Your task to perform on an android device: Search for panasonic triple a on target, select the first entry, and add it to the cart. Image 0: 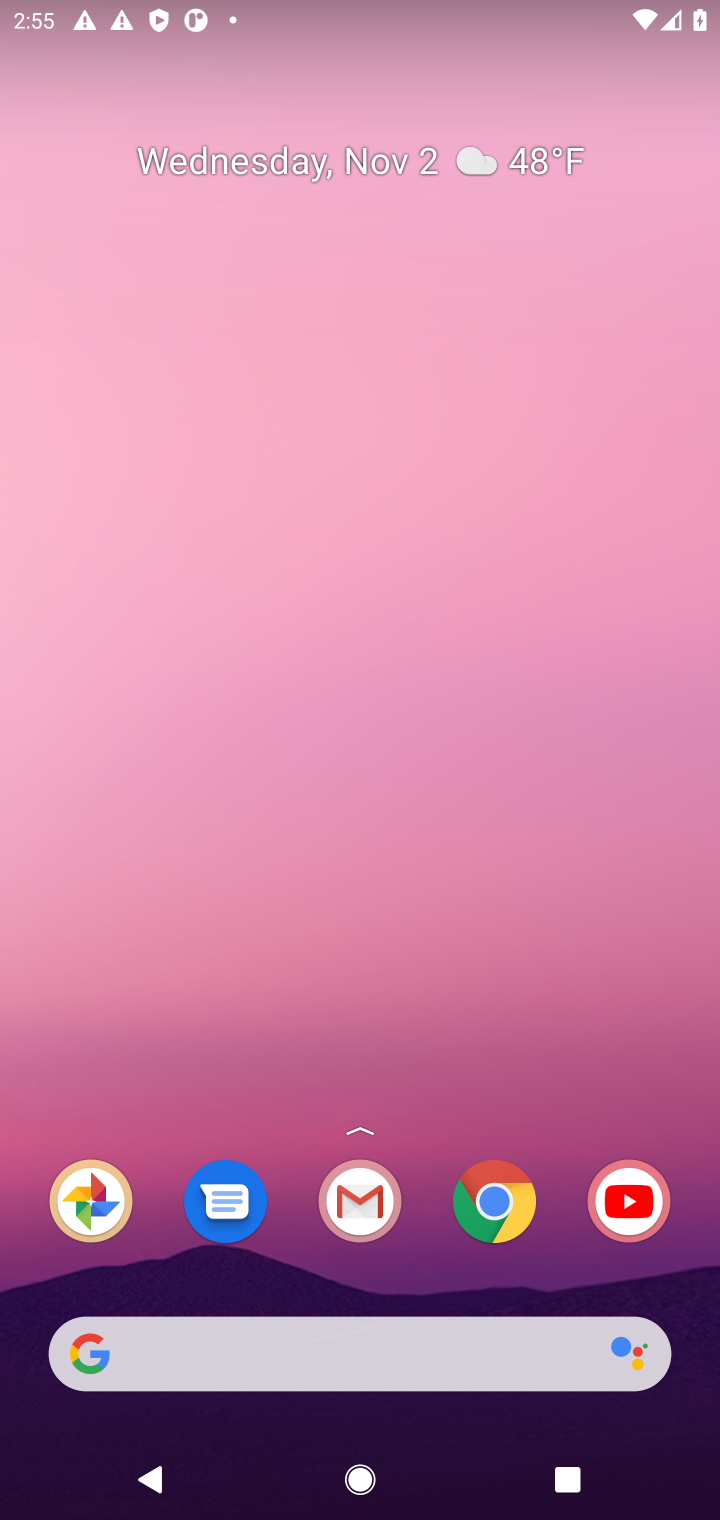
Step 0: click (512, 1202)
Your task to perform on an android device: Search for panasonic triple a on target, select the first entry, and add it to the cart. Image 1: 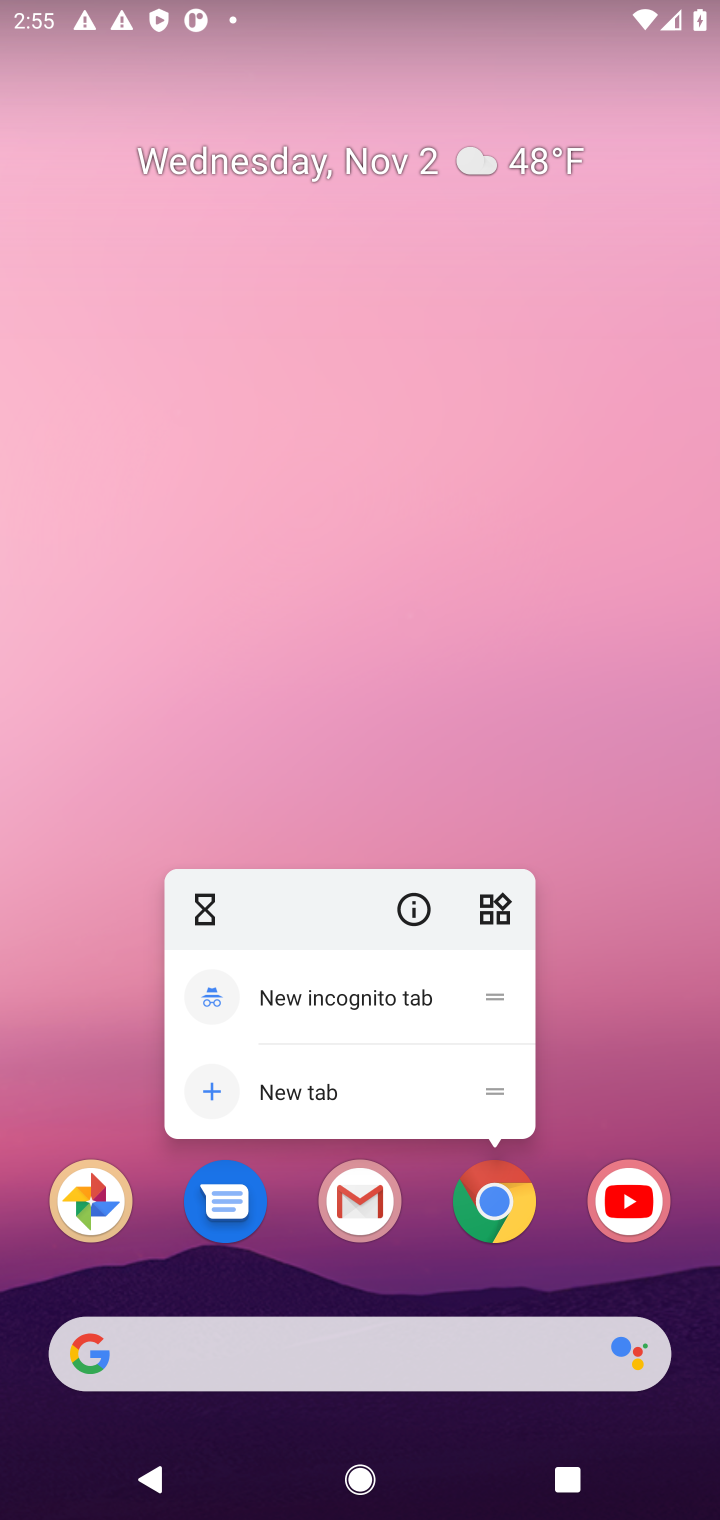
Step 1: click (652, 1045)
Your task to perform on an android device: Search for panasonic triple a on target, select the first entry, and add it to the cart. Image 2: 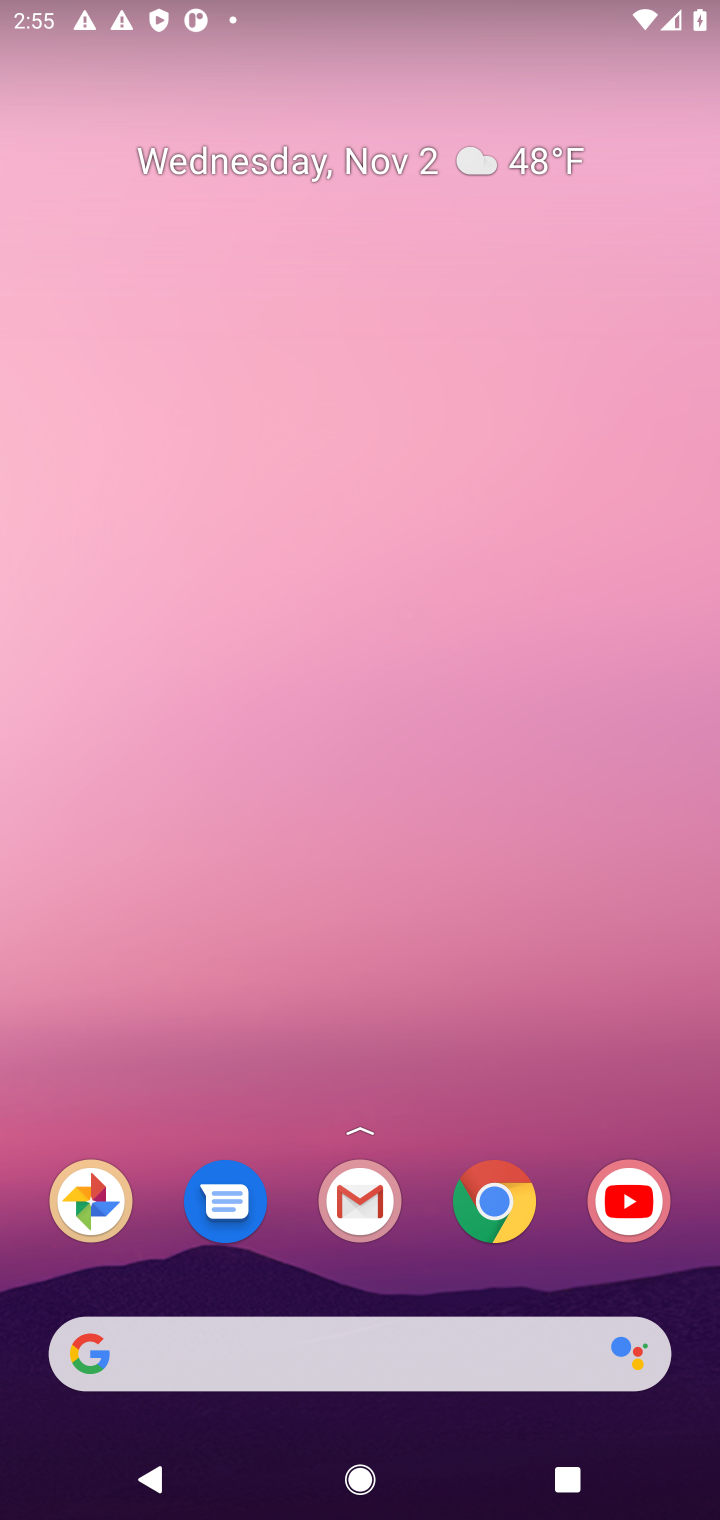
Step 2: click (500, 1192)
Your task to perform on an android device: Search for panasonic triple a on target, select the first entry, and add it to the cart. Image 3: 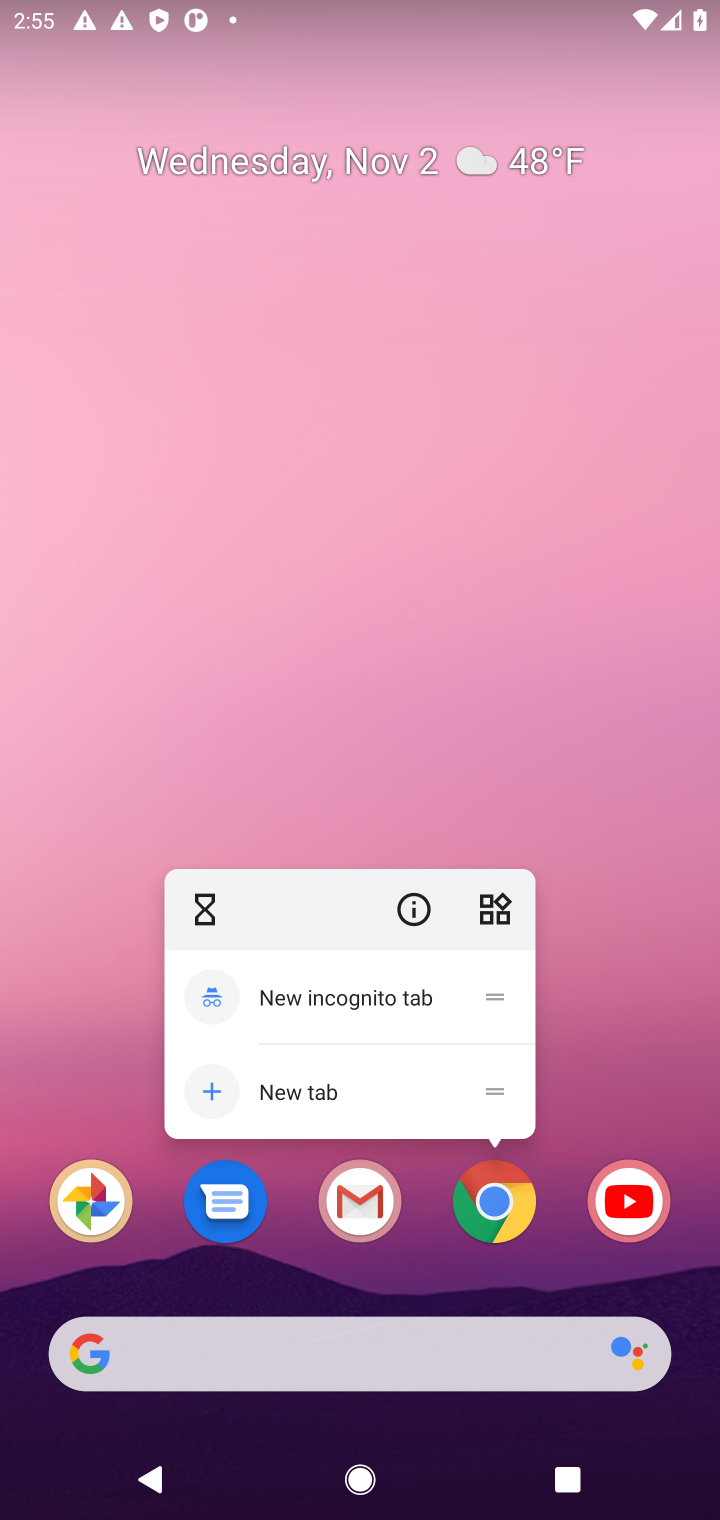
Step 3: click (500, 1192)
Your task to perform on an android device: Search for panasonic triple a on target, select the first entry, and add it to the cart. Image 4: 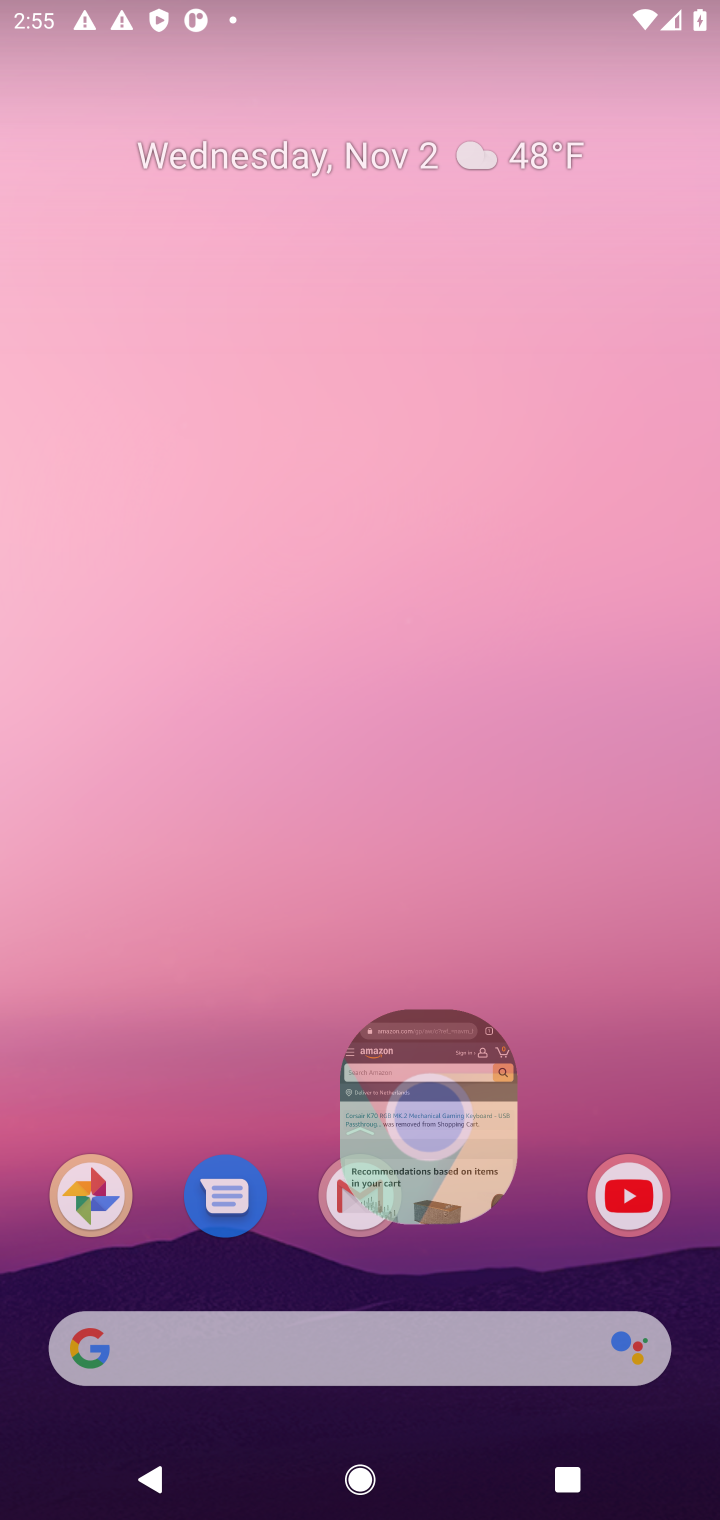
Step 4: click (500, 1192)
Your task to perform on an android device: Search for panasonic triple a on target, select the first entry, and add it to the cart. Image 5: 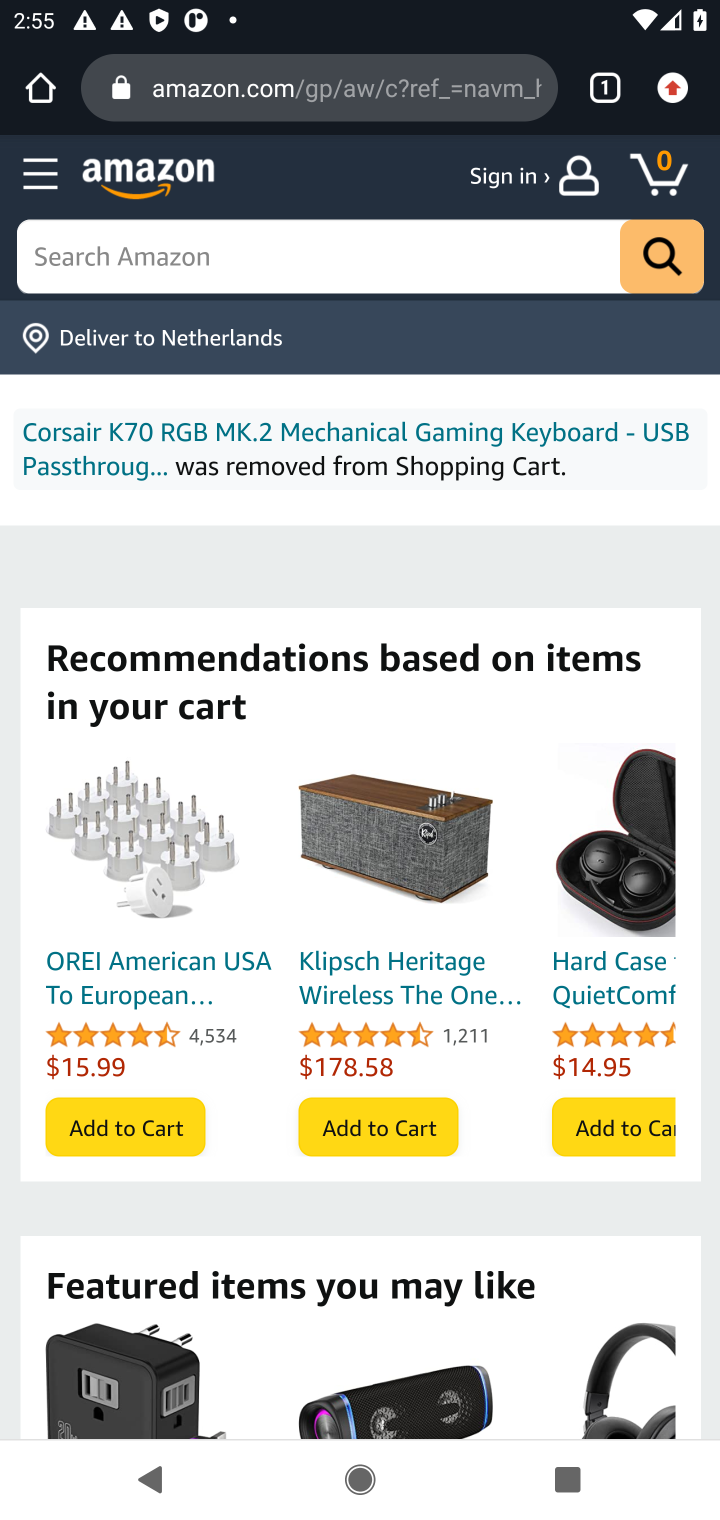
Step 5: click (471, 71)
Your task to perform on an android device: Search for panasonic triple a on target, select the first entry, and add it to the cart. Image 6: 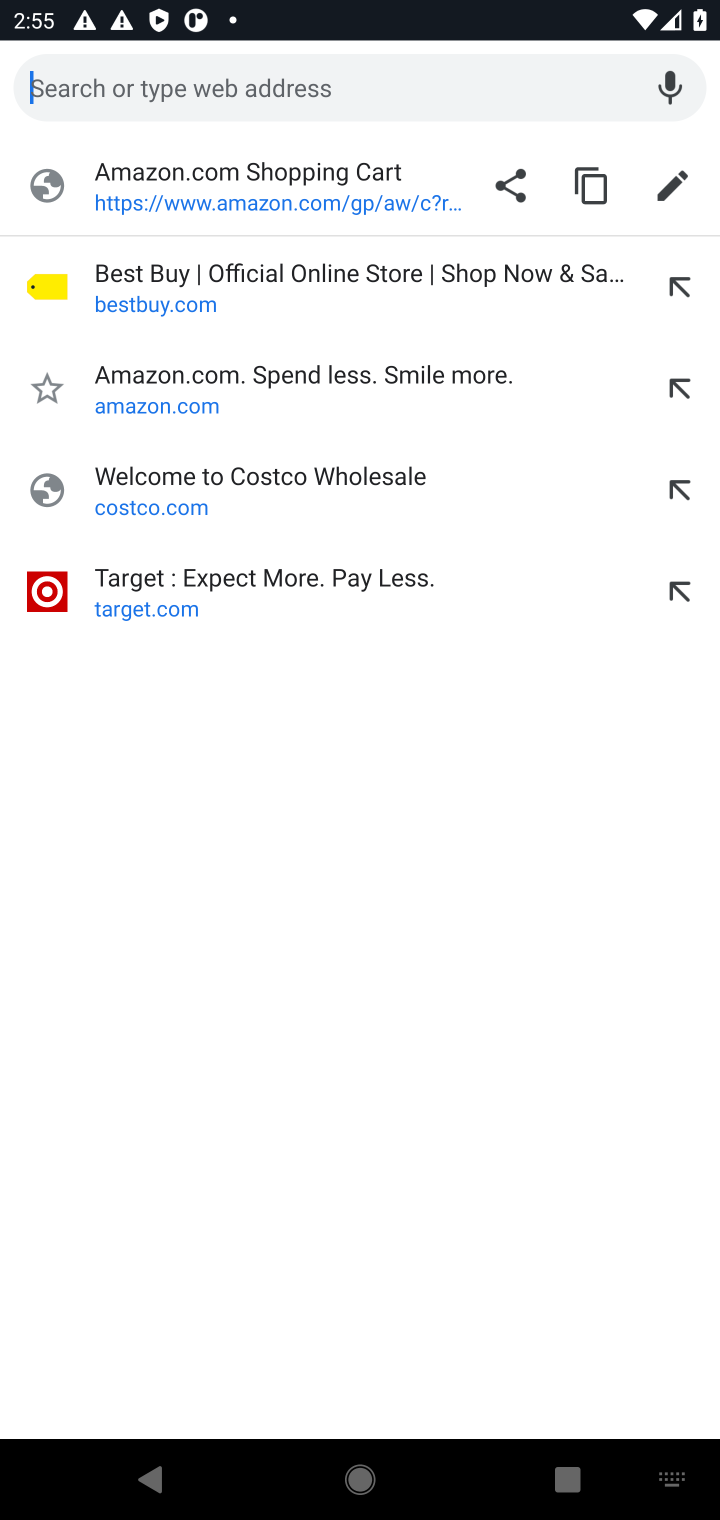
Step 6: click (155, 580)
Your task to perform on an android device: Search for panasonic triple a on target, select the first entry, and add it to the cart. Image 7: 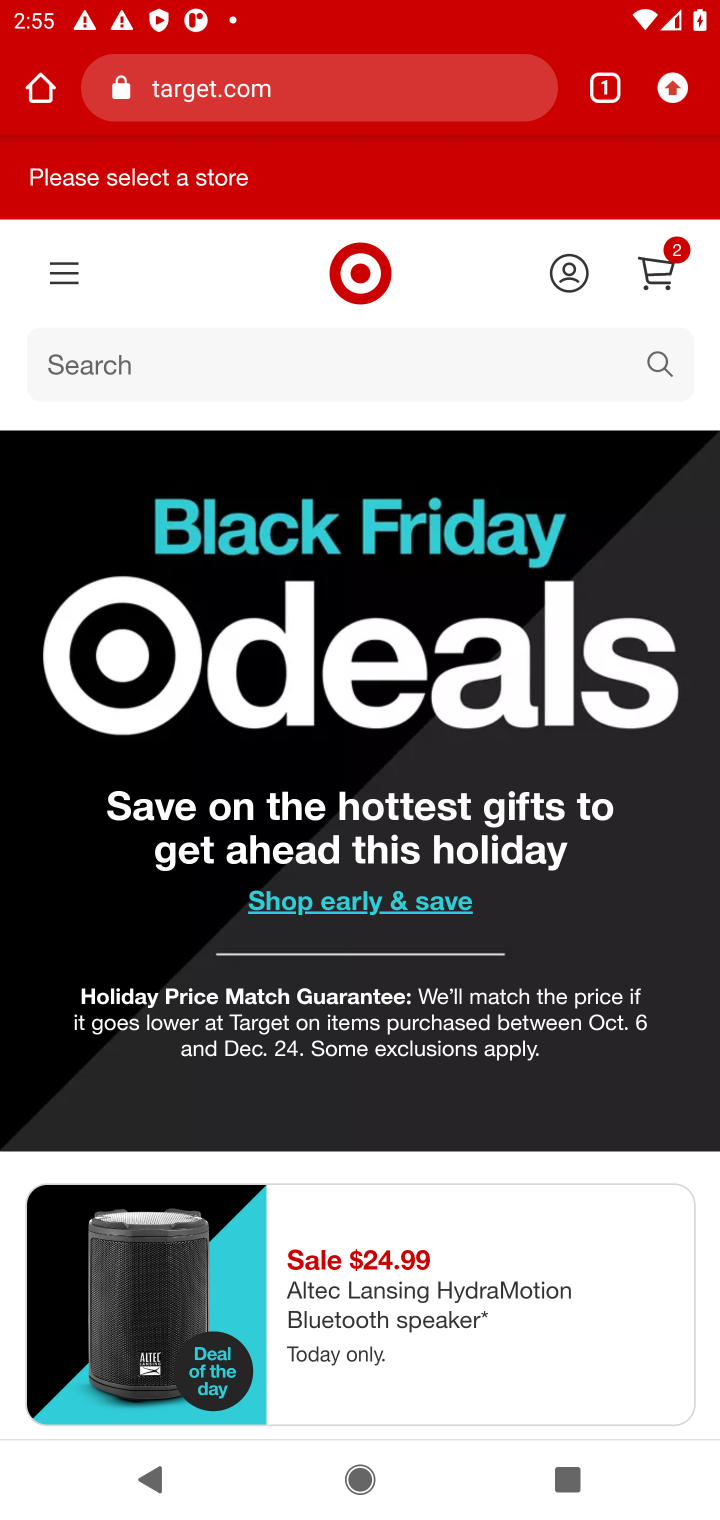
Step 7: click (659, 360)
Your task to perform on an android device: Search for panasonic triple a on target, select the first entry, and add it to the cart. Image 8: 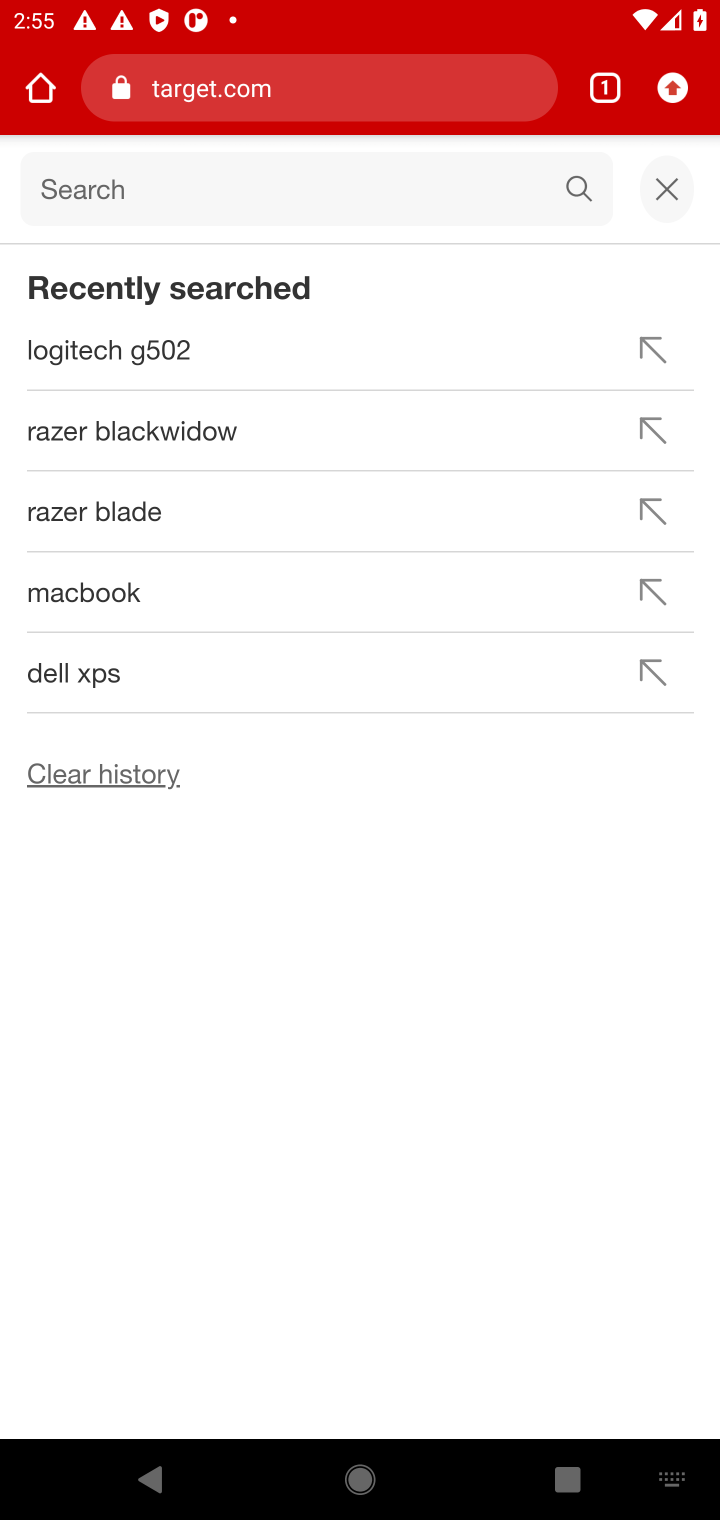
Step 8: type "panasonic triple a"
Your task to perform on an android device: Search for panasonic triple a on target, select the first entry, and add it to the cart. Image 9: 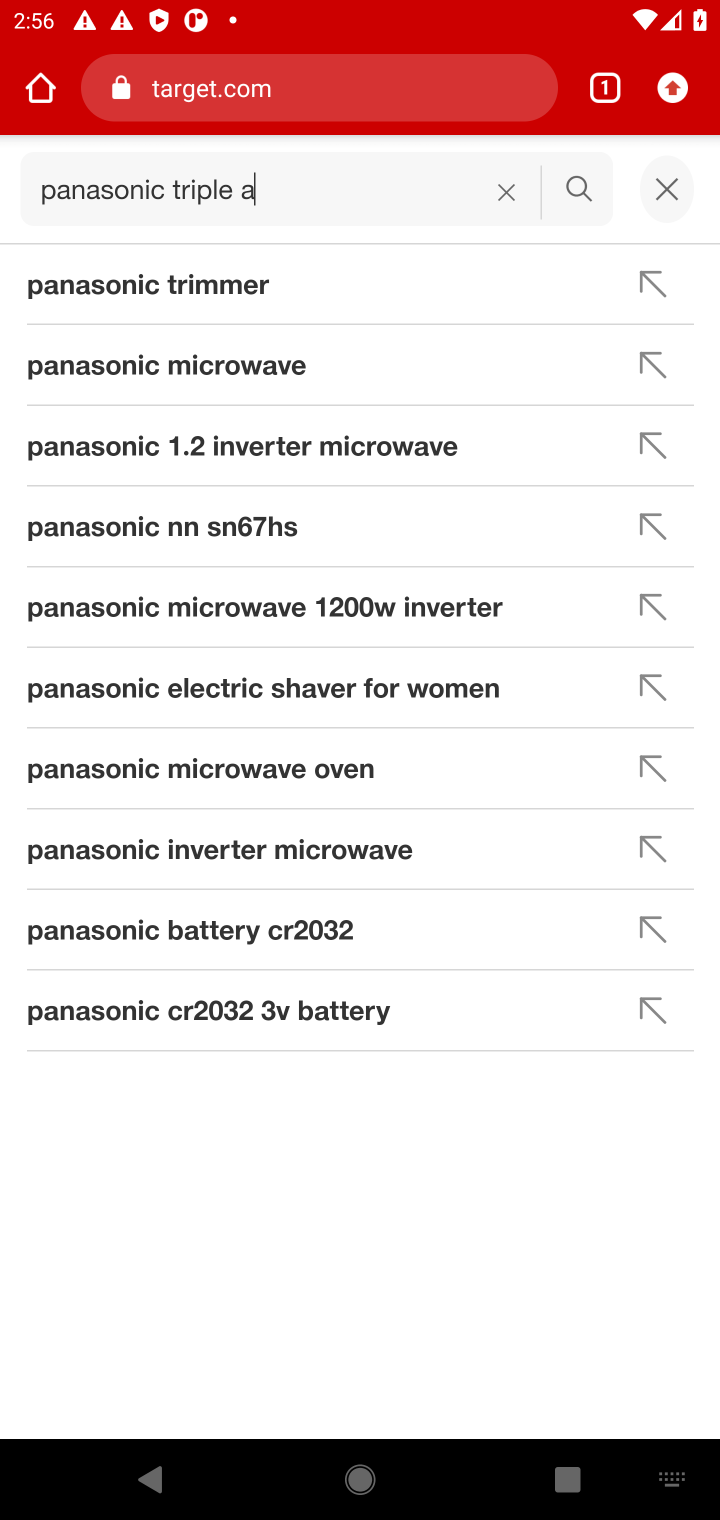
Step 9: click (443, 195)
Your task to perform on an android device: Search for panasonic triple a on target, select the first entry, and add it to the cart. Image 10: 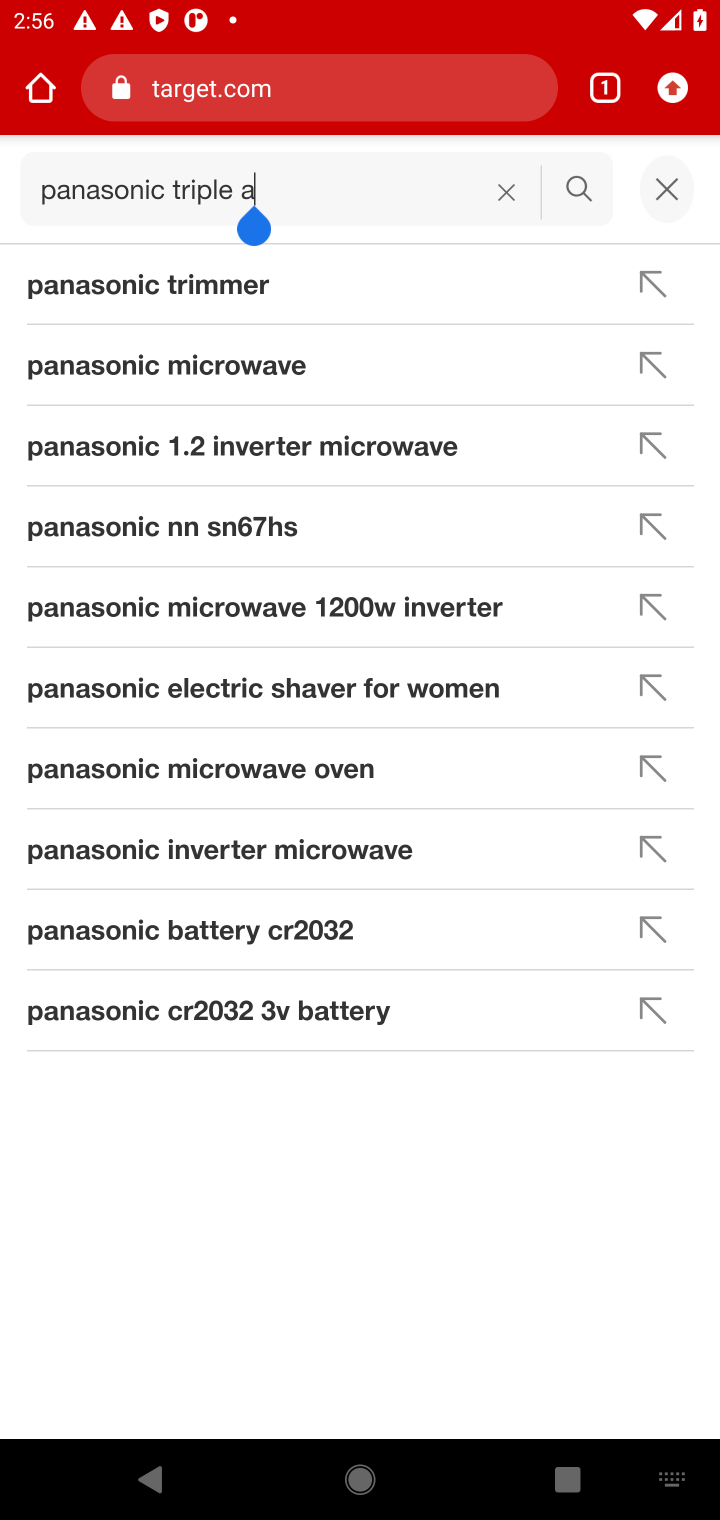
Step 10: click (532, 1245)
Your task to perform on an android device: Search for panasonic triple a on target, select the first entry, and add it to the cart. Image 11: 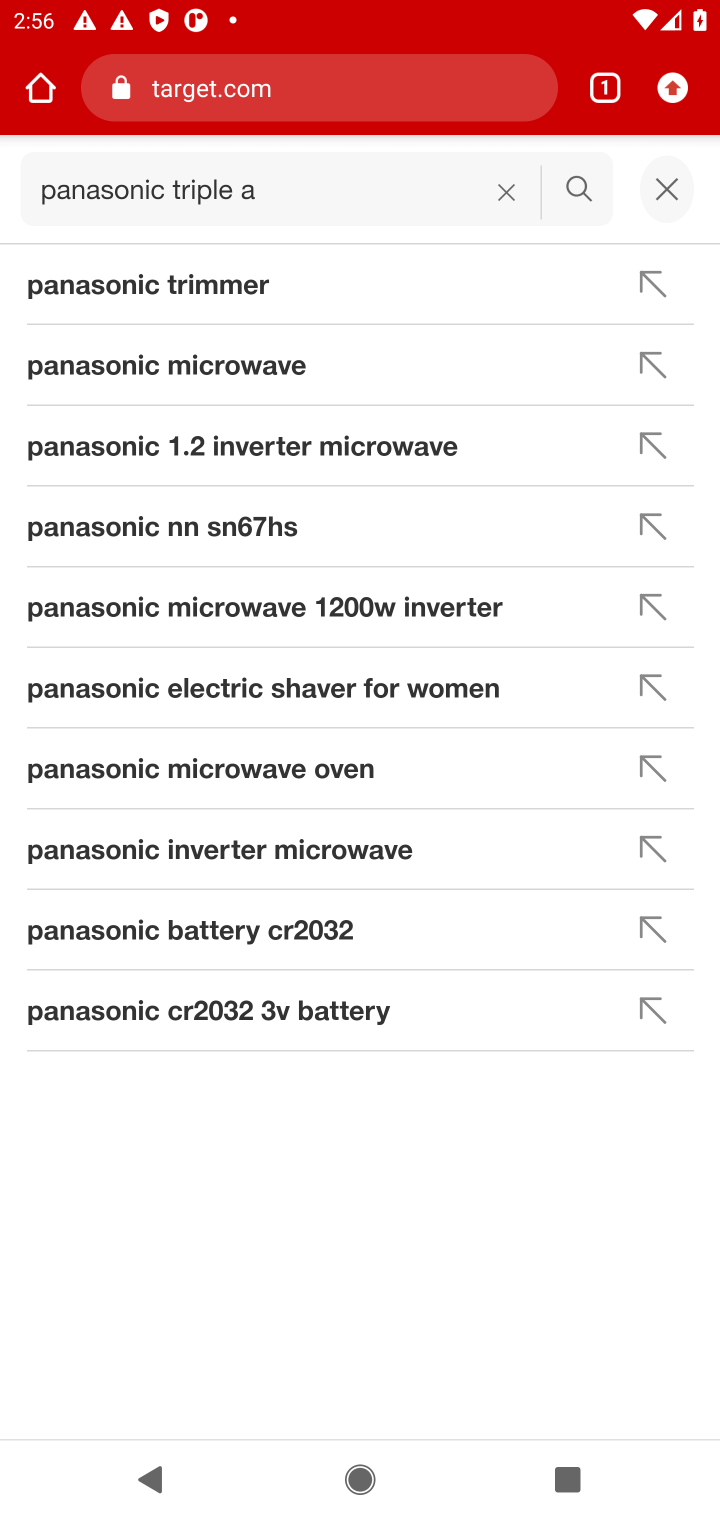
Step 11: click (549, 21)
Your task to perform on an android device: Search for panasonic triple a on target, select the first entry, and add it to the cart. Image 12: 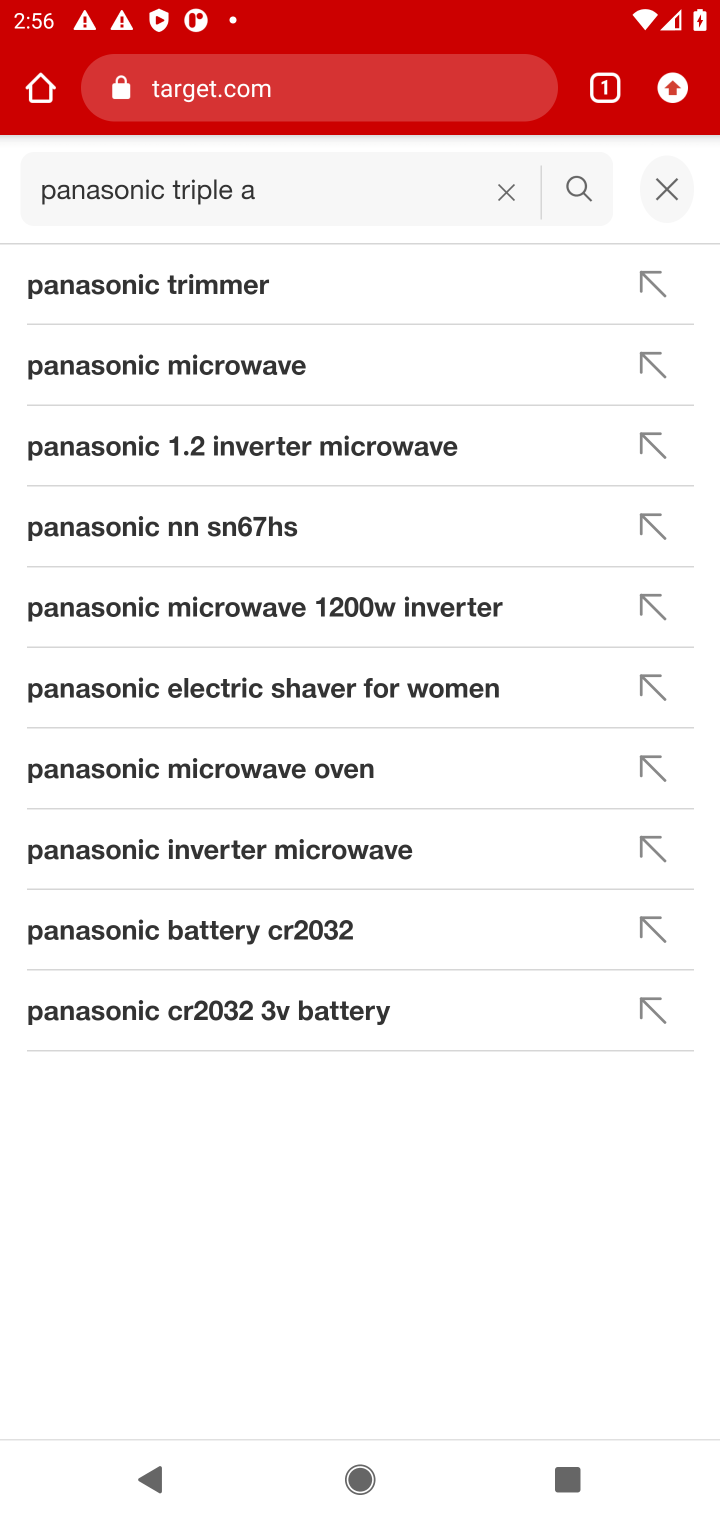
Step 12: click (339, 201)
Your task to perform on an android device: Search for panasonic triple a on target, select the first entry, and add it to the cart. Image 13: 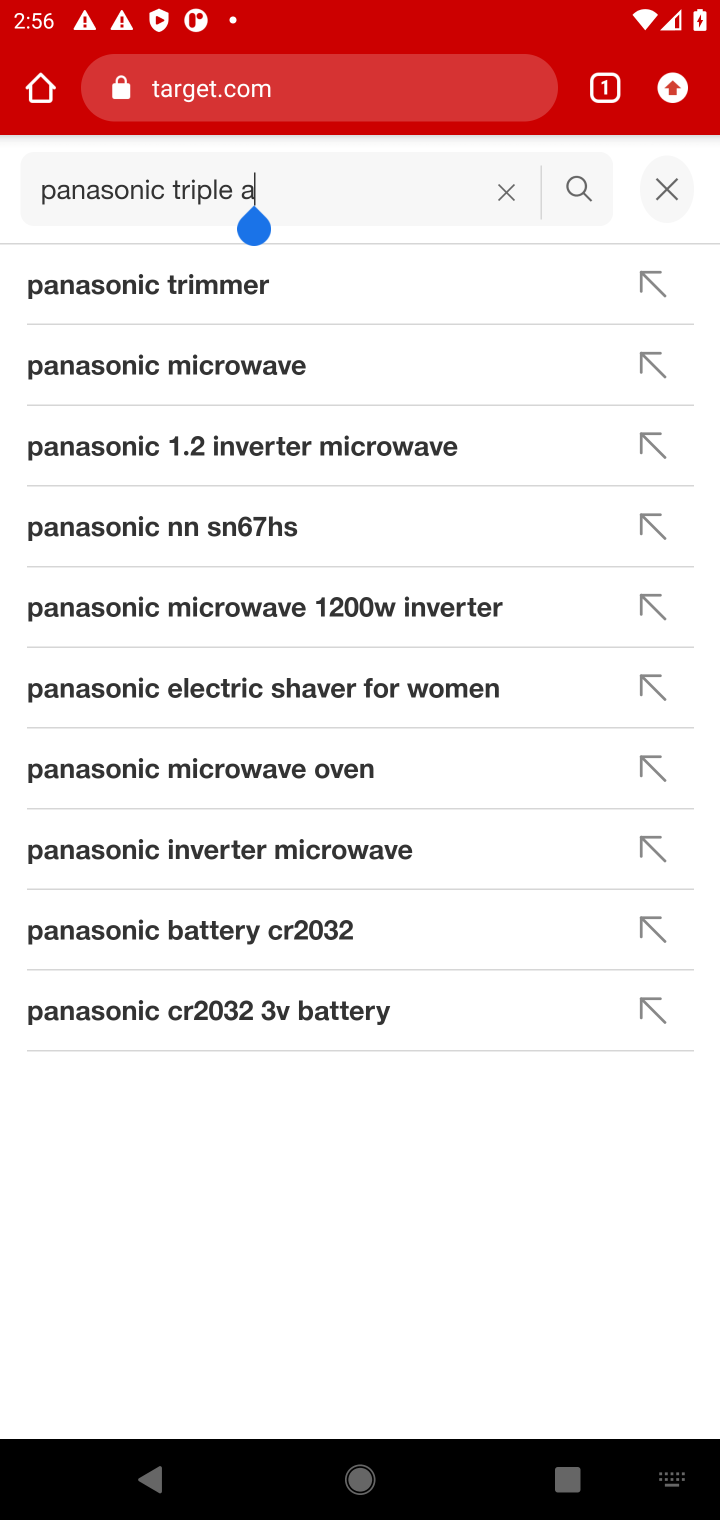
Step 13: click (504, 199)
Your task to perform on an android device: Search for panasonic triple a on target, select the first entry, and add it to the cart. Image 14: 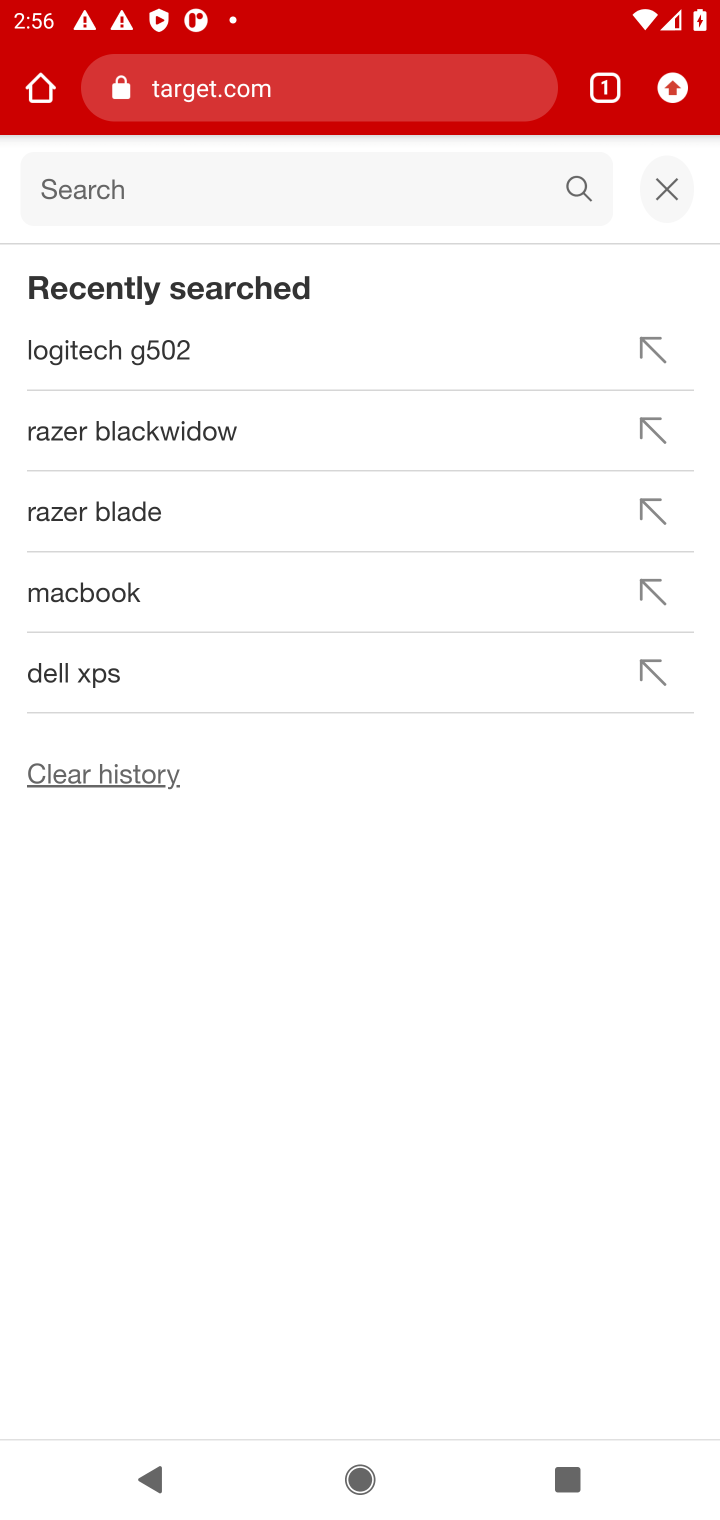
Step 14: type "panasonic triple "
Your task to perform on an android device: Search for panasonic triple a on target, select the first entry, and add it to the cart. Image 15: 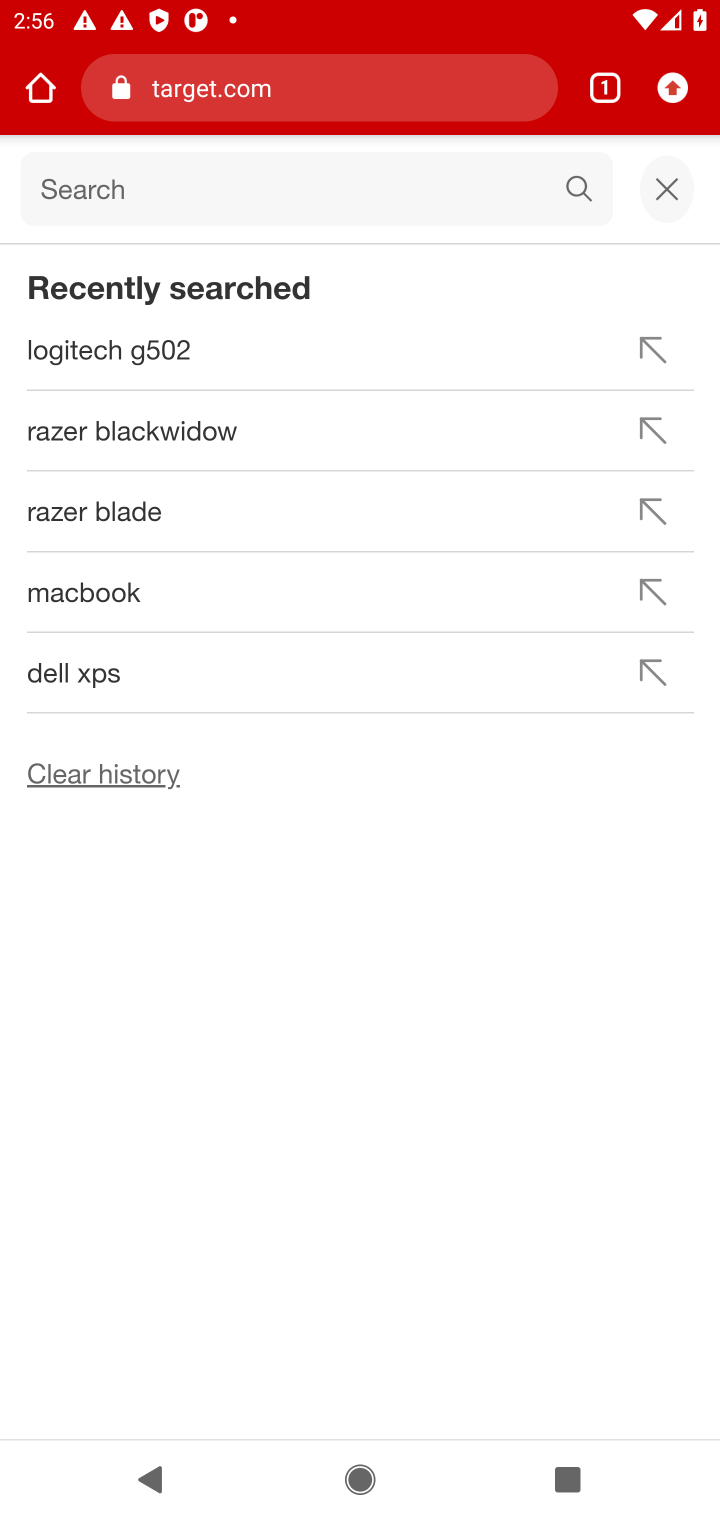
Step 15: click (497, 192)
Your task to perform on an android device: Search for panasonic triple a on target, select the first entry, and add it to the cart. Image 16: 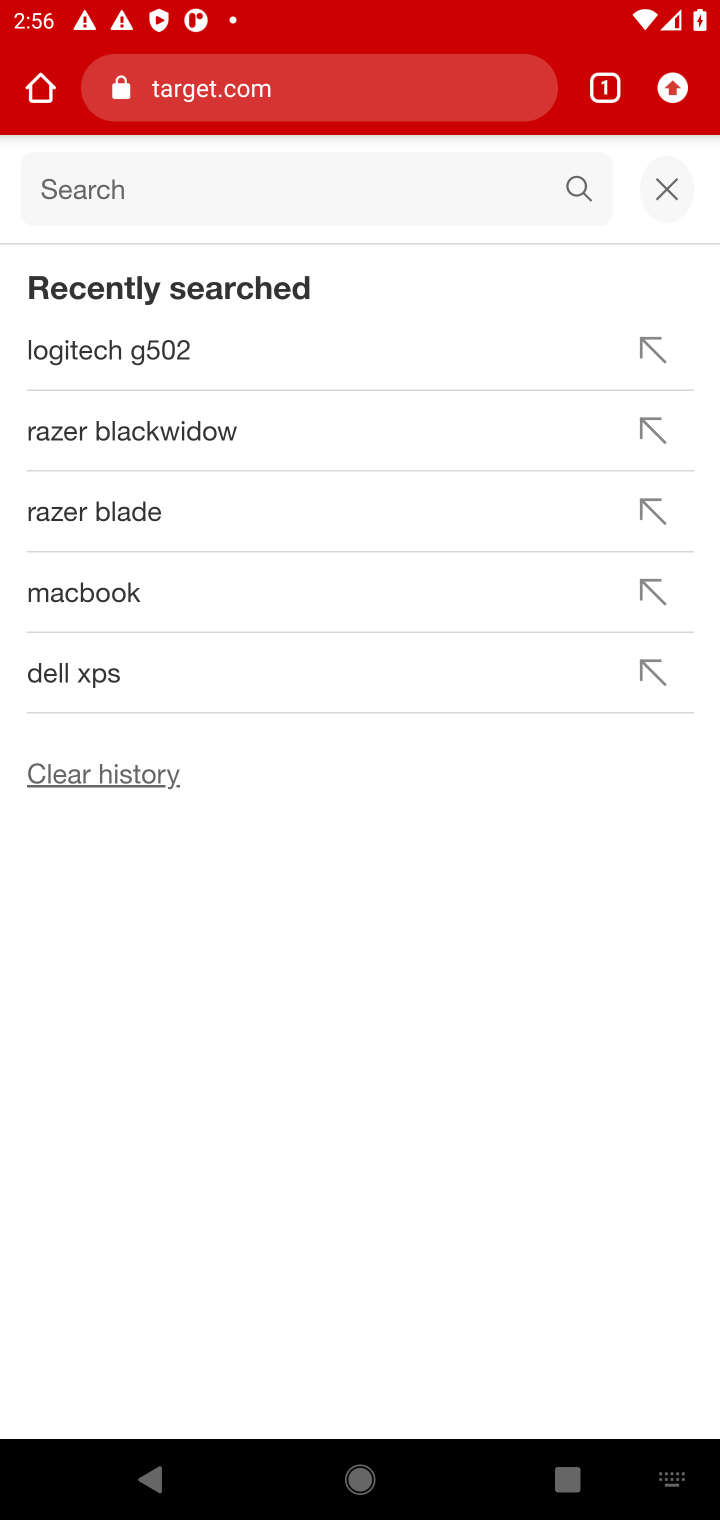
Step 16: type "panasonic triple "
Your task to perform on an android device: Search for panasonic triple a on target, select the first entry, and add it to the cart. Image 17: 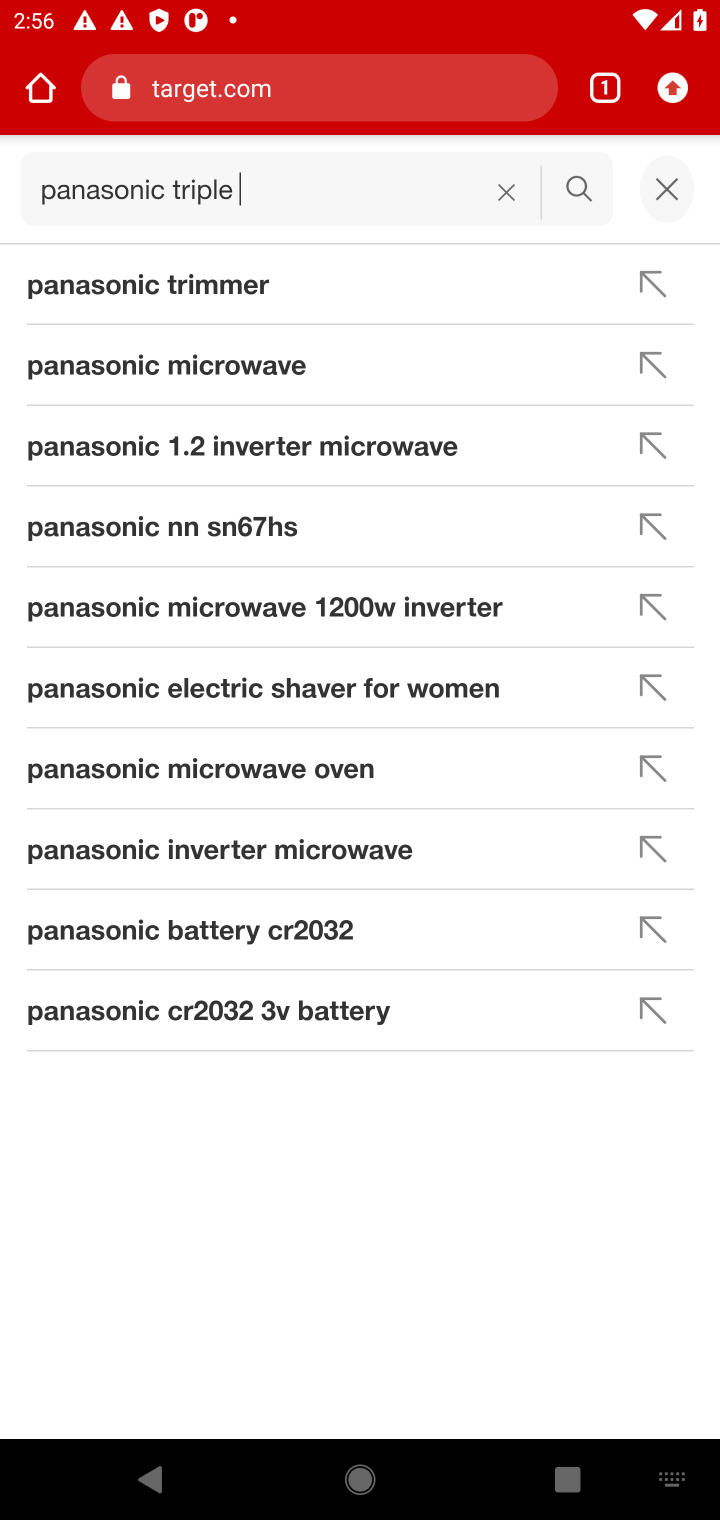
Step 17: click (422, 192)
Your task to perform on an android device: Search for panasonic triple a on target, select the first entry, and add it to the cart. Image 18: 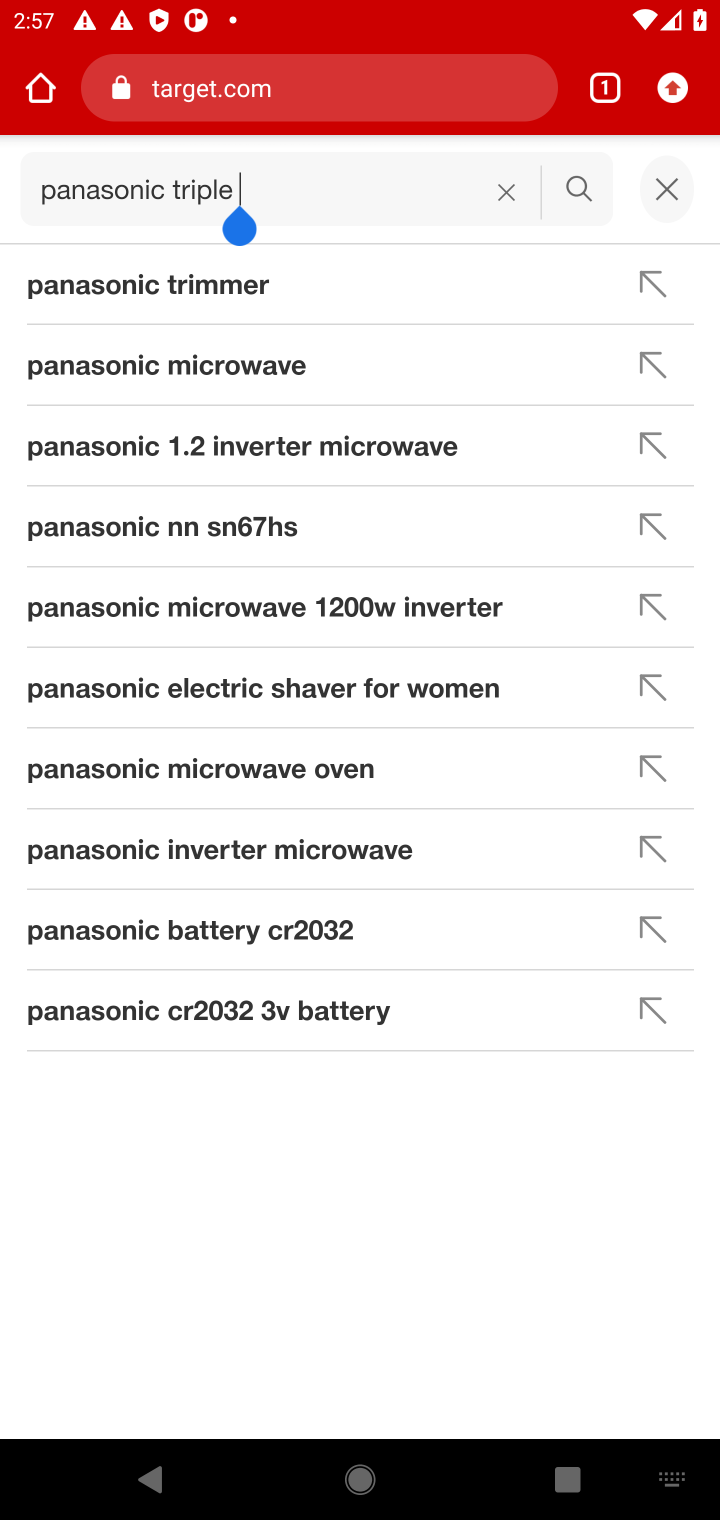
Step 18: task complete